Your task to perform on an android device: Go to notification settings Image 0: 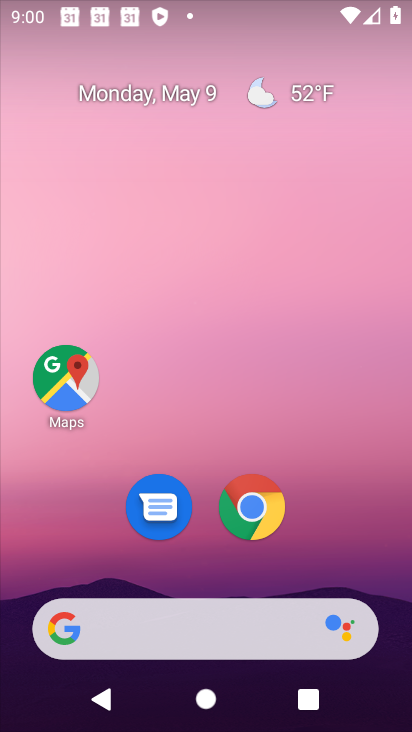
Step 0: drag from (348, 542) to (229, 122)
Your task to perform on an android device: Go to notification settings Image 1: 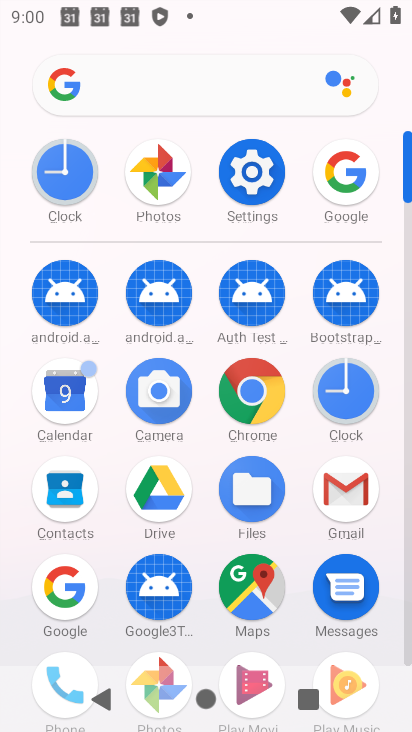
Step 1: click (249, 168)
Your task to perform on an android device: Go to notification settings Image 2: 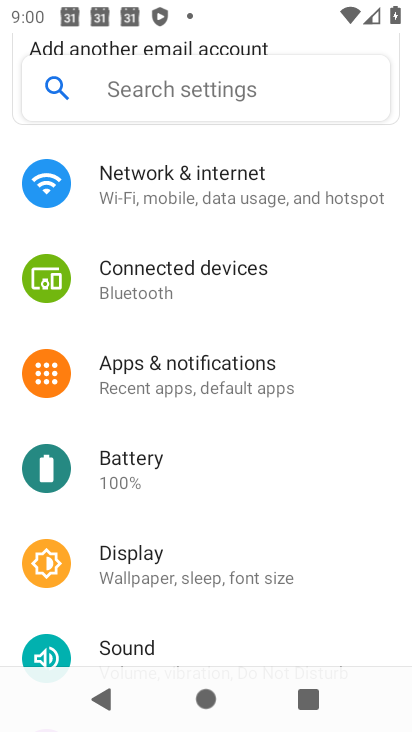
Step 2: click (194, 358)
Your task to perform on an android device: Go to notification settings Image 3: 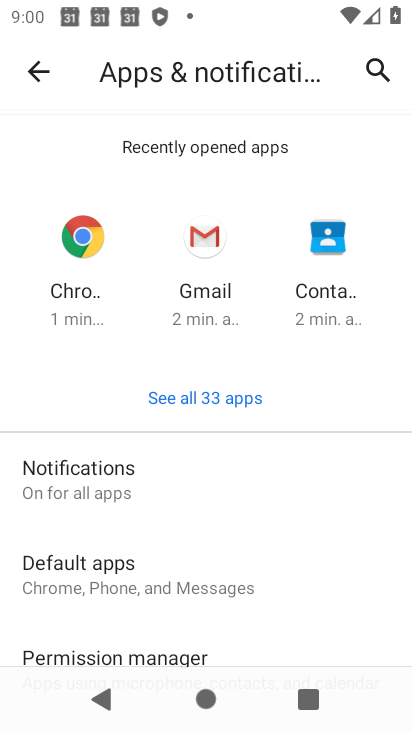
Step 3: click (91, 468)
Your task to perform on an android device: Go to notification settings Image 4: 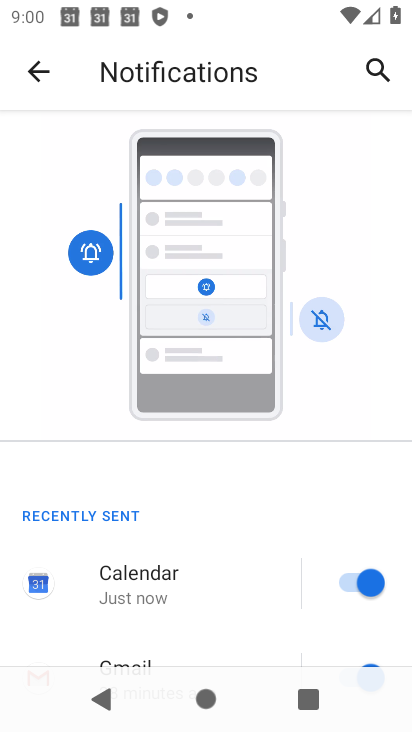
Step 4: task complete